Your task to perform on an android device: Search for sushi restaurants on Maps Image 0: 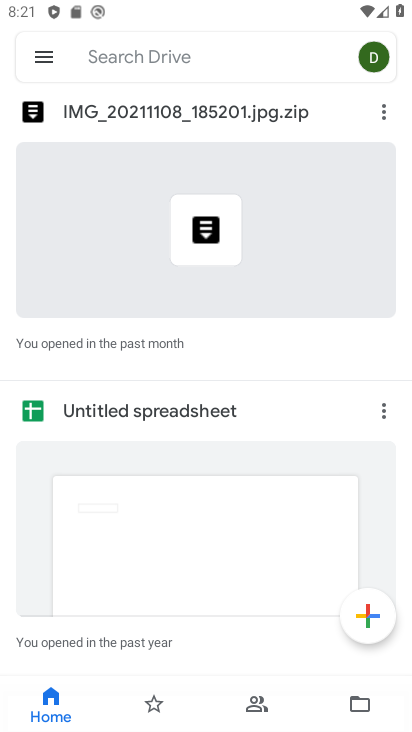
Step 0: press home button
Your task to perform on an android device: Search for sushi restaurants on Maps Image 1: 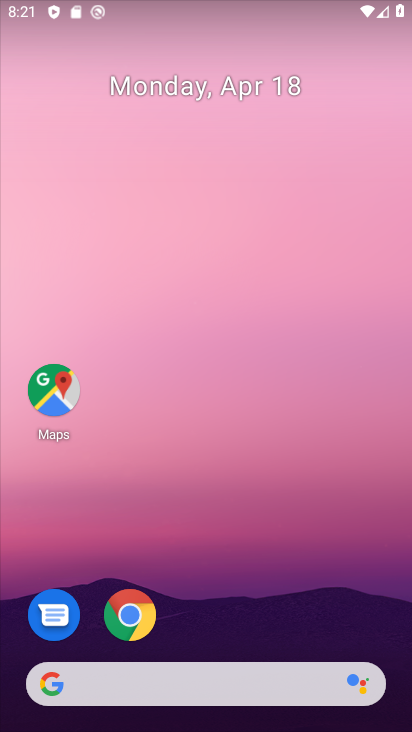
Step 1: click (50, 389)
Your task to perform on an android device: Search for sushi restaurants on Maps Image 2: 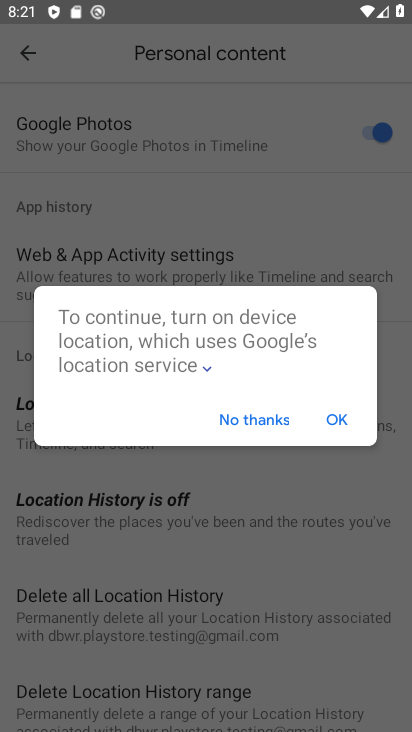
Step 2: click (334, 412)
Your task to perform on an android device: Search for sushi restaurants on Maps Image 3: 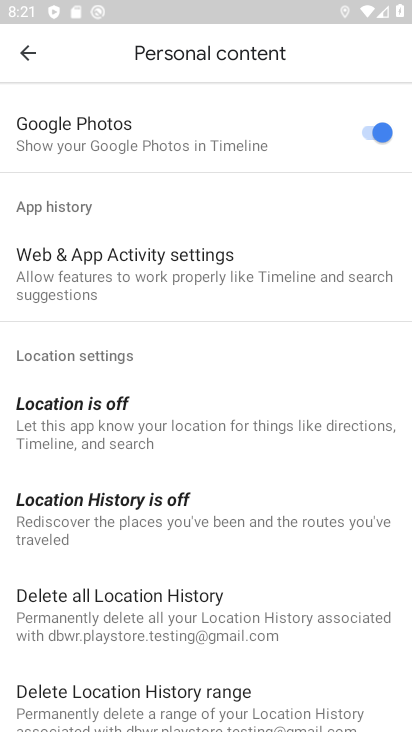
Step 3: click (33, 51)
Your task to perform on an android device: Search for sushi restaurants on Maps Image 4: 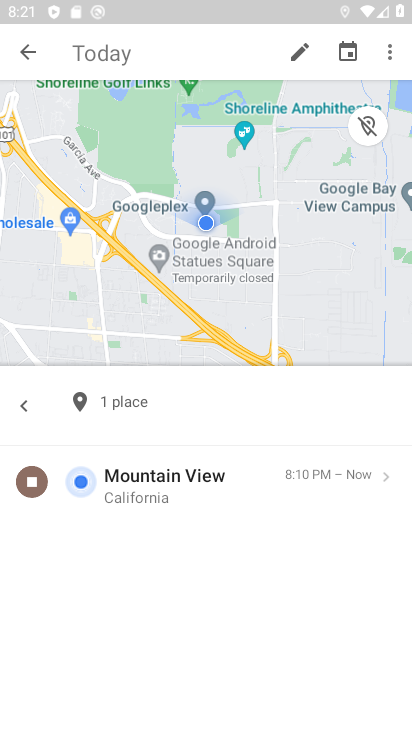
Step 4: click (27, 51)
Your task to perform on an android device: Search for sushi restaurants on Maps Image 5: 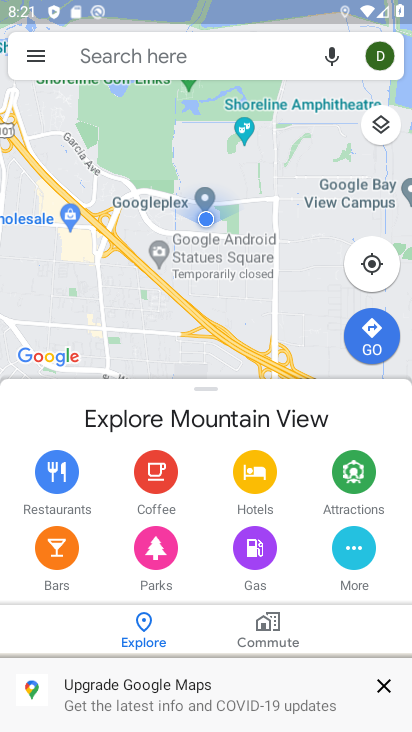
Step 5: click (125, 52)
Your task to perform on an android device: Search for sushi restaurants on Maps Image 6: 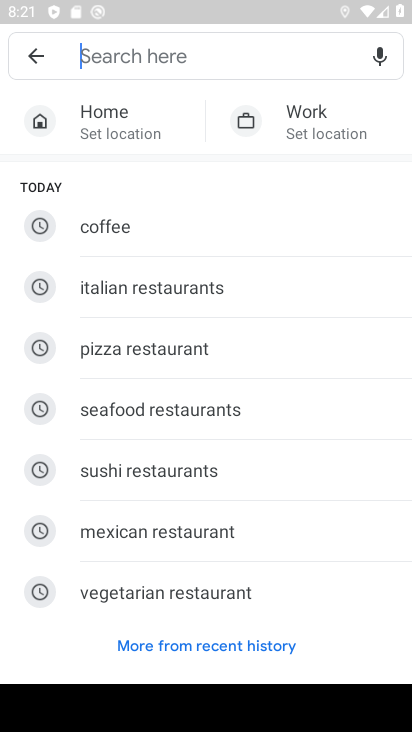
Step 6: click (167, 460)
Your task to perform on an android device: Search for sushi restaurants on Maps Image 7: 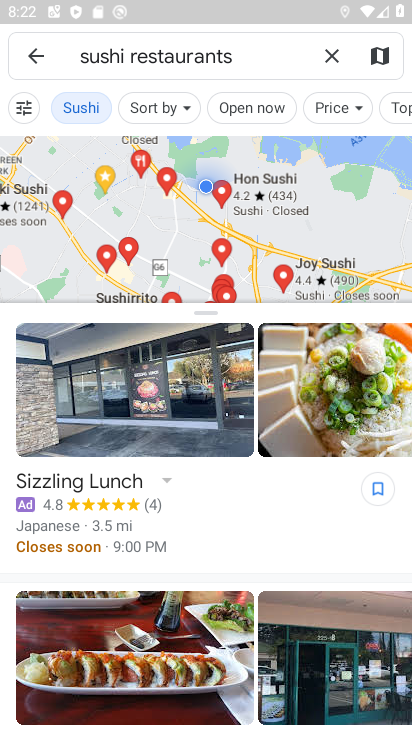
Step 7: task complete